Your task to perform on an android device: change notification settings in the gmail app Image 0: 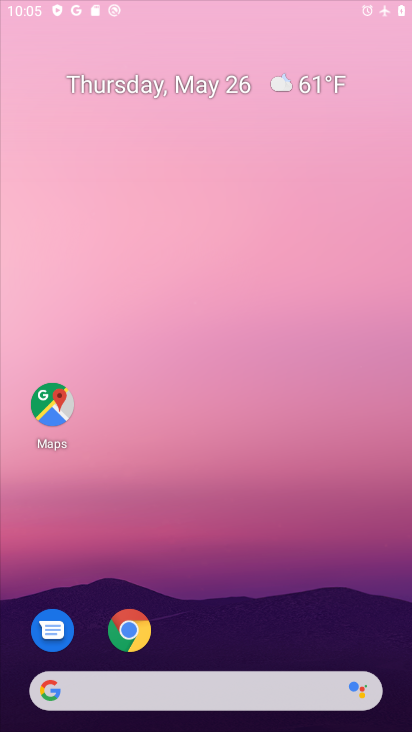
Step 0: click (59, 418)
Your task to perform on an android device: change notification settings in the gmail app Image 1: 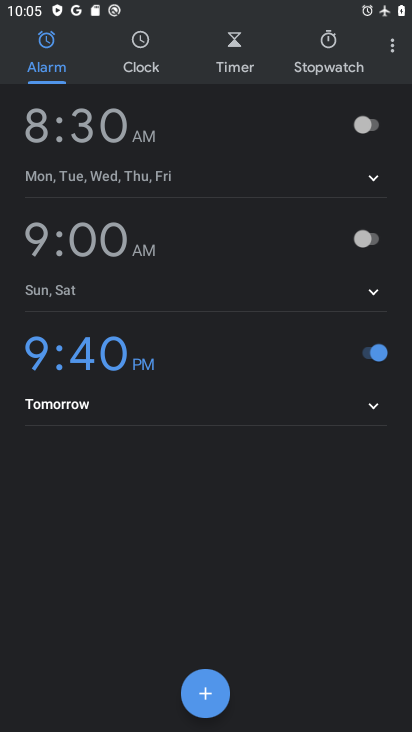
Step 1: press home button
Your task to perform on an android device: change notification settings in the gmail app Image 2: 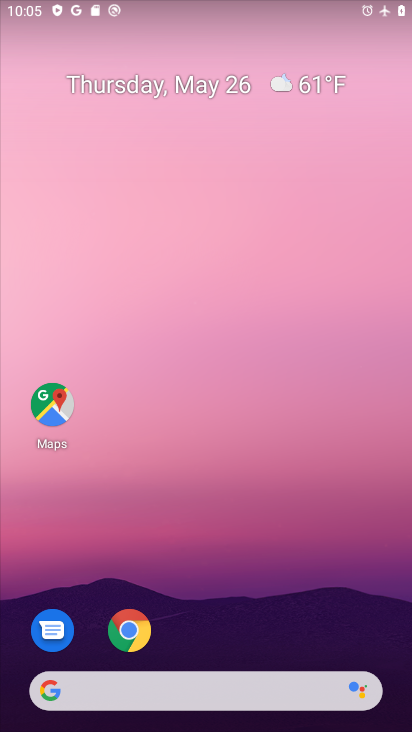
Step 2: drag from (241, 657) to (293, 87)
Your task to perform on an android device: change notification settings in the gmail app Image 3: 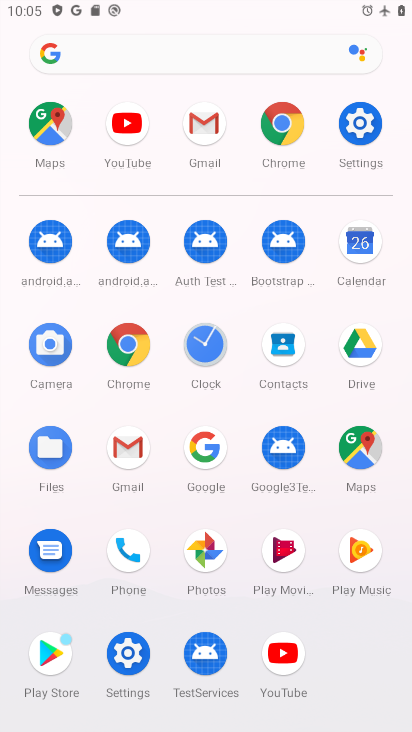
Step 3: click (120, 462)
Your task to perform on an android device: change notification settings in the gmail app Image 4: 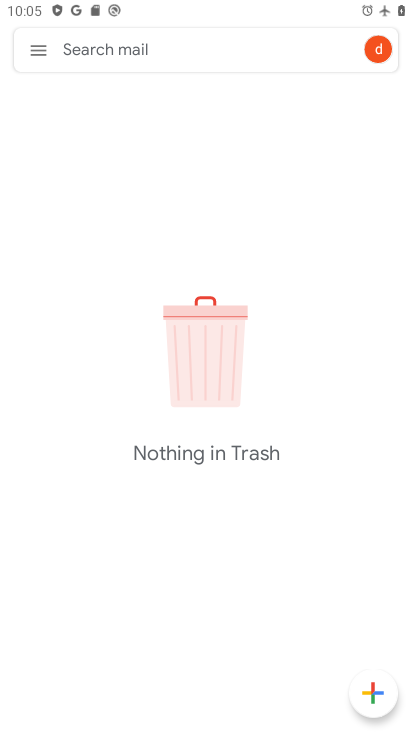
Step 4: click (26, 43)
Your task to perform on an android device: change notification settings in the gmail app Image 5: 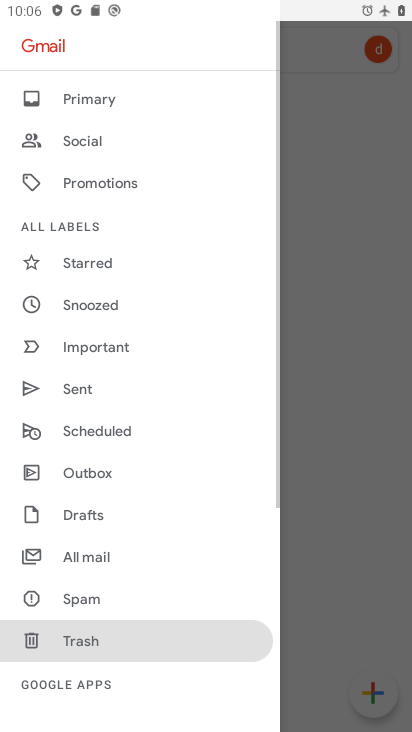
Step 5: drag from (95, 586) to (97, 293)
Your task to perform on an android device: change notification settings in the gmail app Image 6: 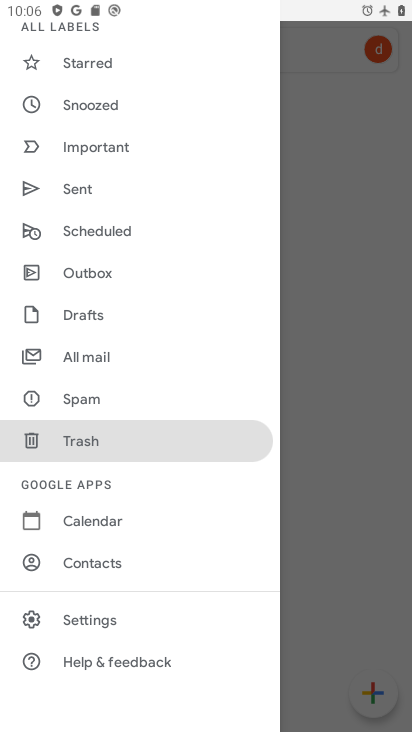
Step 6: click (89, 615)
Your task to perform on an android device: change notification settings in the gmail app Image 7: 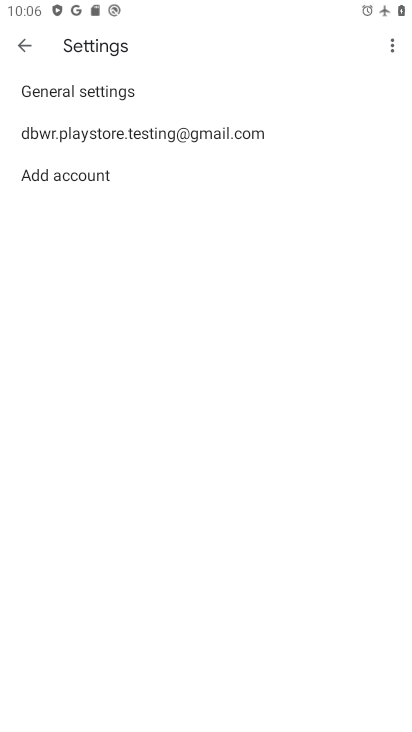
Step 7: click (97, 77)
Your task to perform on an android device: change notification settings in the gmail app Image 8: 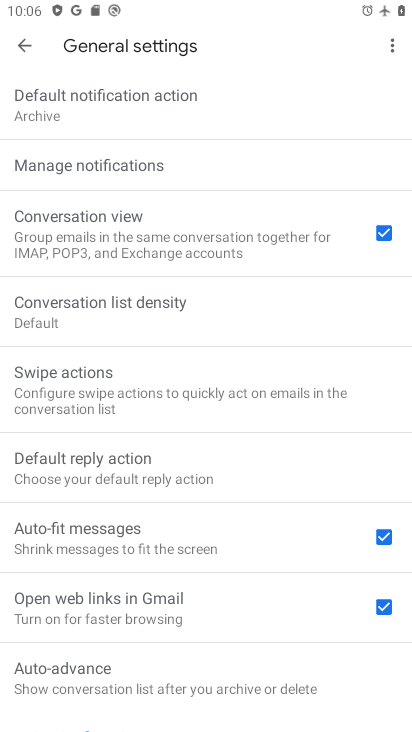
Step 8: click (84, 152)
Your task to perform on an android device: change notification settings in the gmail app Image 9: 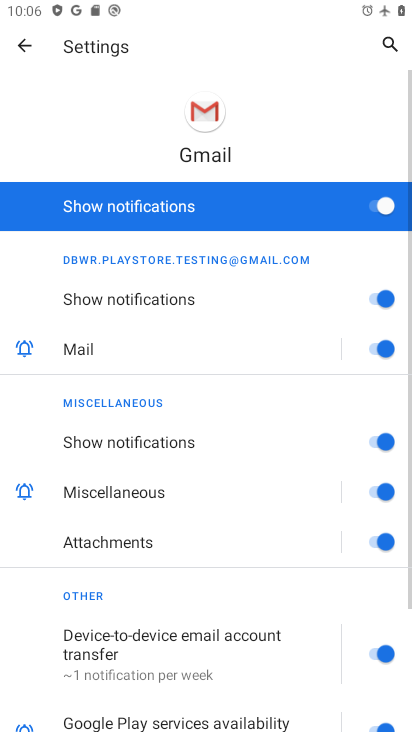
Step 9: click (374, 204)
Your task to perform on an android device: change notification settings in the gmail app Image 10: 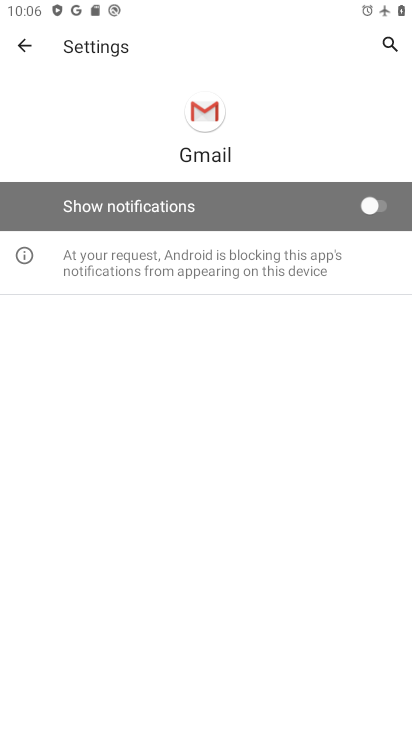
Step 10: task complete